Your task to perform on an android device: Open settings Image 0: 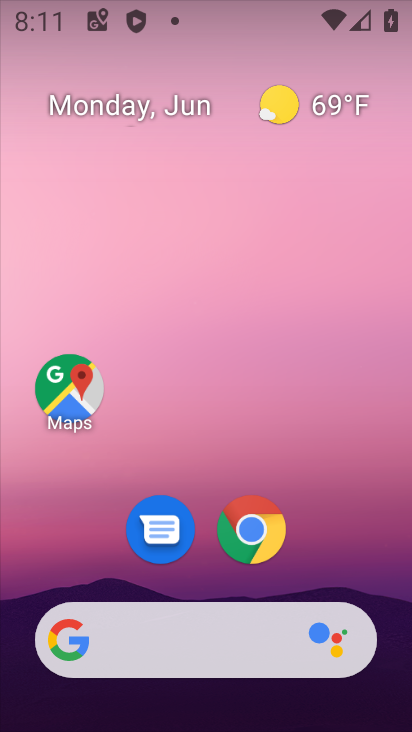
Step 0: drag from (348, 501) to (374, 171)
Your task to perform on an android device: Open settings Image 1: 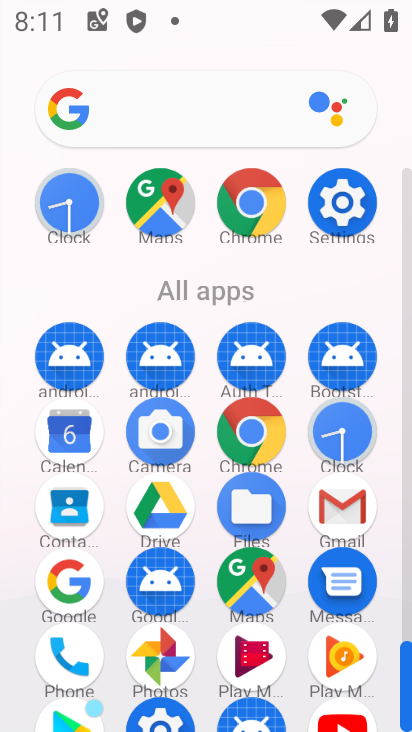
Step 1: click (343, 209)
Your task to perform on an android device: Open settings Image 2: 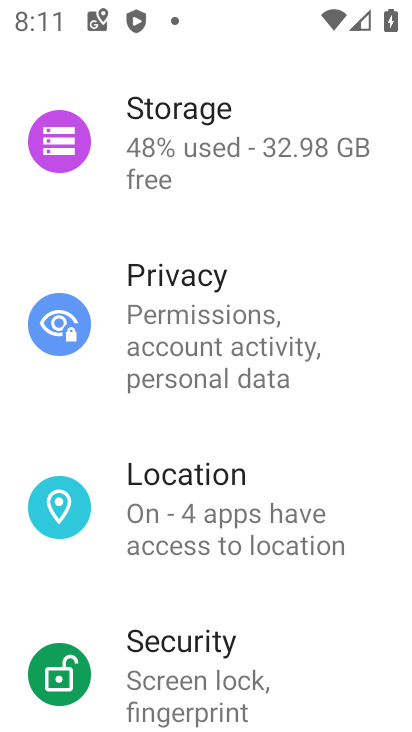
Step 2: task complete